Your task to perform on an android device: install app "Google Drive" Image 0: 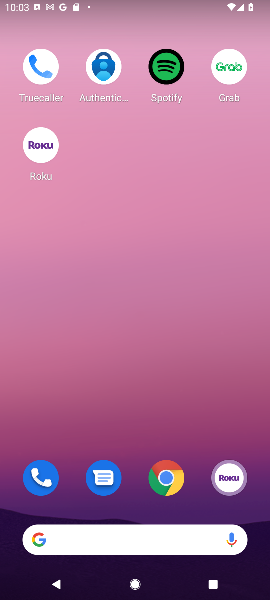
Step 0: drag from (130, 519) to (130, 169)
Your task to perform on an android device: install app "Google Drive" Image 1: 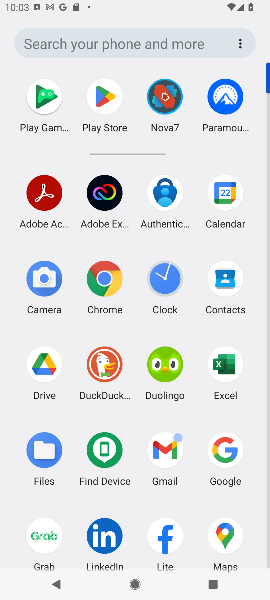
Step 1: click (103, 120)
Your task to perform on an android device: install app "Google Drive" Image 2: 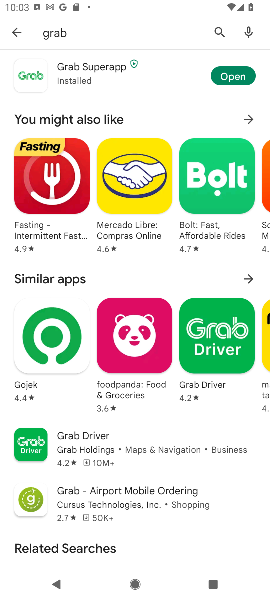
Step 2: click (222, 32)
Your task to perform on an android device: install app "Google Drive" Image 3: 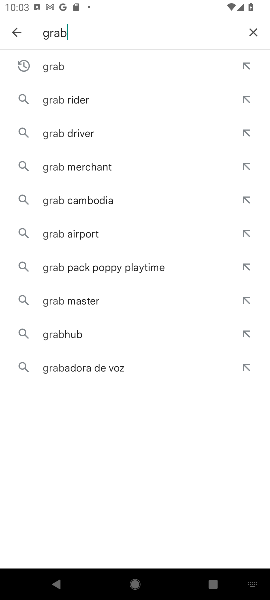
Step 3: click (252, 32)
Your task to perform on an android device: install app "Google Drive" Image 4: 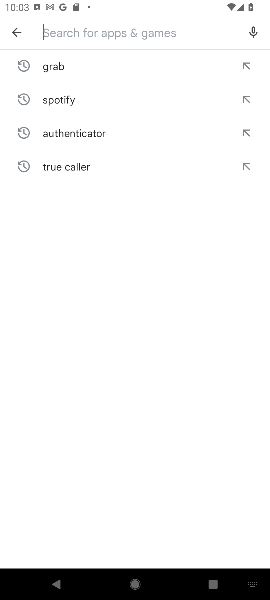
Step 4: type "google drive"
Your task to perform on an android device: install app "Google Drive" Image 5: 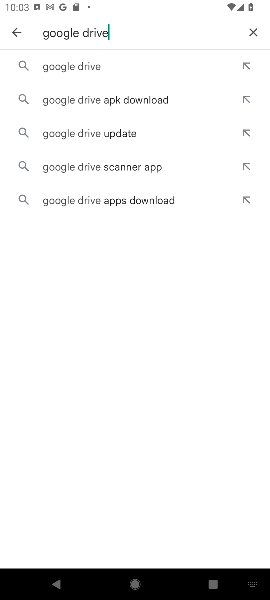
Step 5: click (144, 65)
Your task to perform on an android device: install app "Google Drive" Image 6: 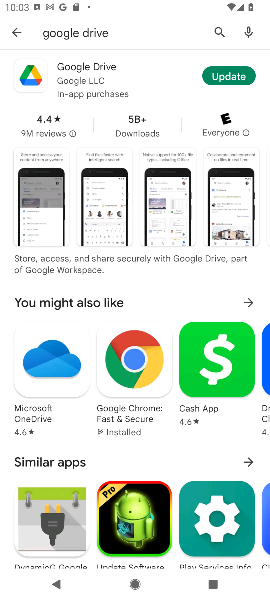
Step 6: click (209, 77)
Your task to perform on an android device: install app "Google Drive" Image 7: 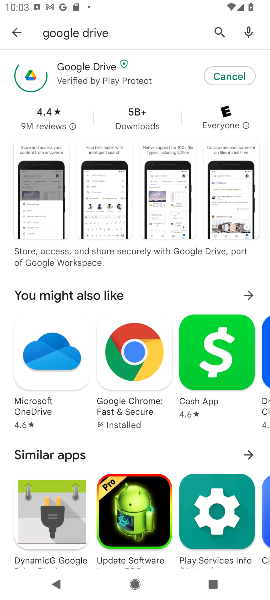
Step 7: task complete